Your task to perform on an android device: What is the news today? Image 0: 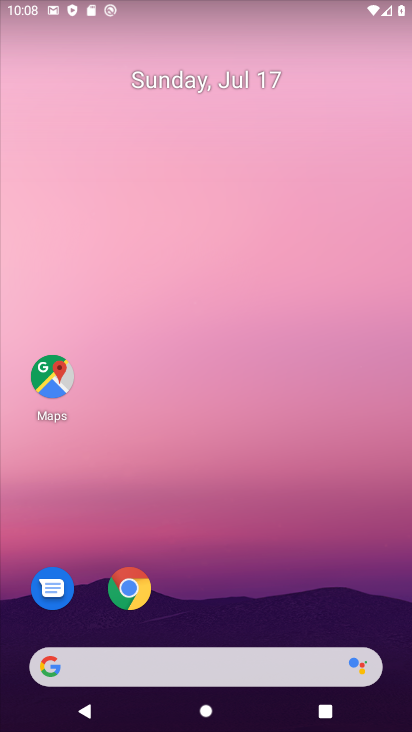
Step 0: click (124, 591)
Your task to perform on an android device: What is the news today? Image 1: 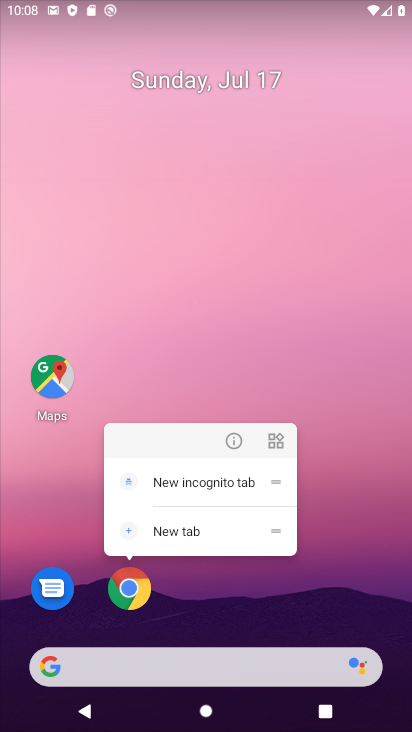
Step 1: click (124, 591)
Your task to perform on an android device: What is the news today? Image 2: 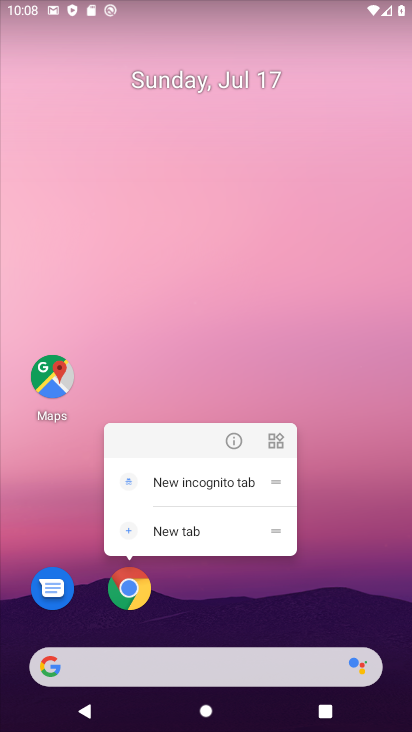
Step 2: click (124, 591)
Your task to perform on an android device: What is the news today? Image 3: 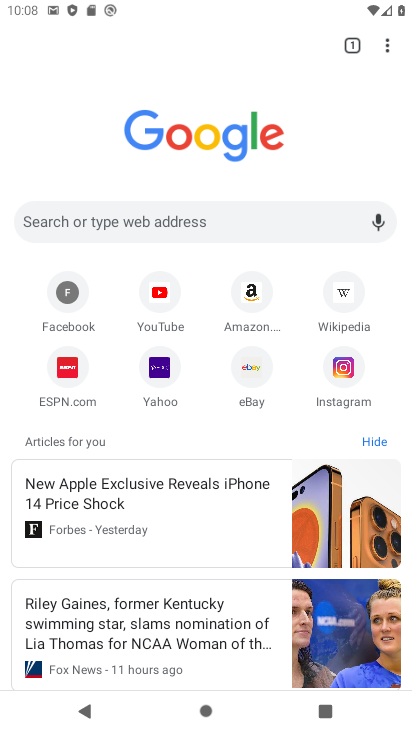
Step 3: click (118, 228)
Your task to perform on an android device: What is the news today? Image 4: 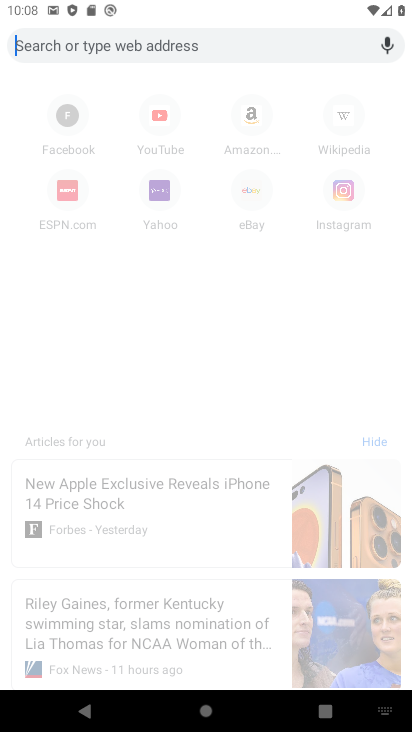
Step 4: type "What is the news today?"
Your task to perform on an android device: What is the news today? Image 5: 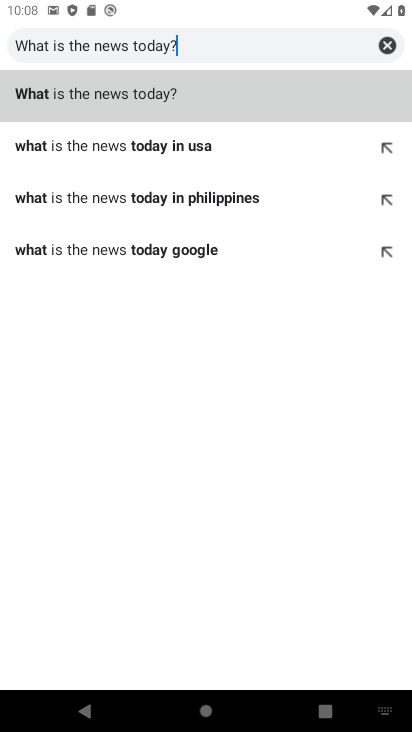
Step 5: type ""
Your task to perform on an android device: What is the news today? Image 6: 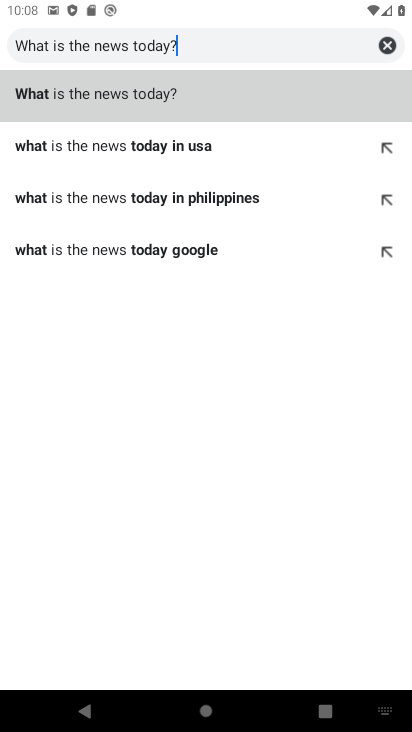
Step 6: click (63, 95)
Your task to perform on an android device: What is the news today? Image 7: 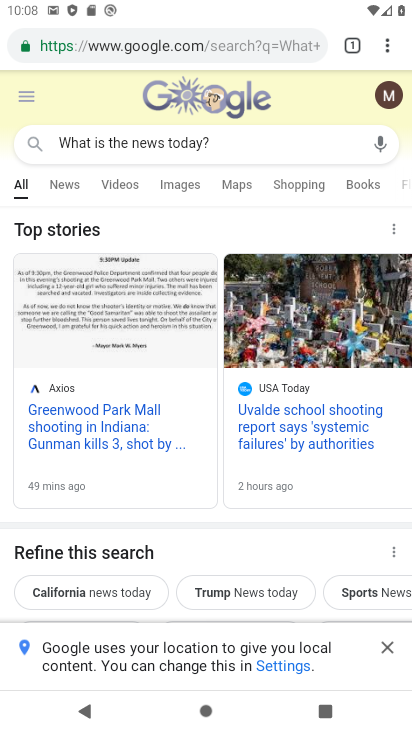
Step 7: task complete